Your task to perform on an android device: Add "usb-c to usb-a" to the cart on ebay Image 0: 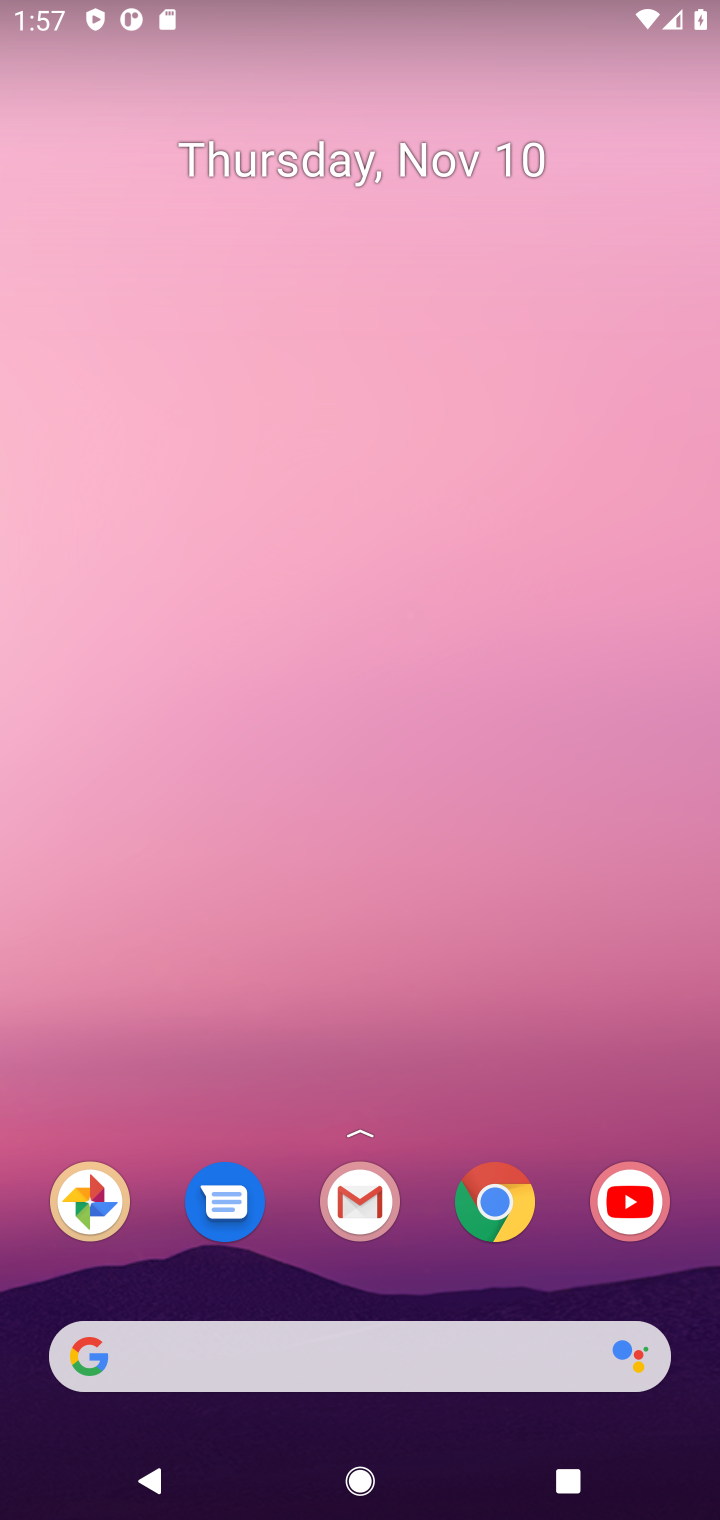
Step 0: click (497, 1198)
Your task to perform on an android device: Add "usb-c to usb-a" to the cart on ebay Image 1: 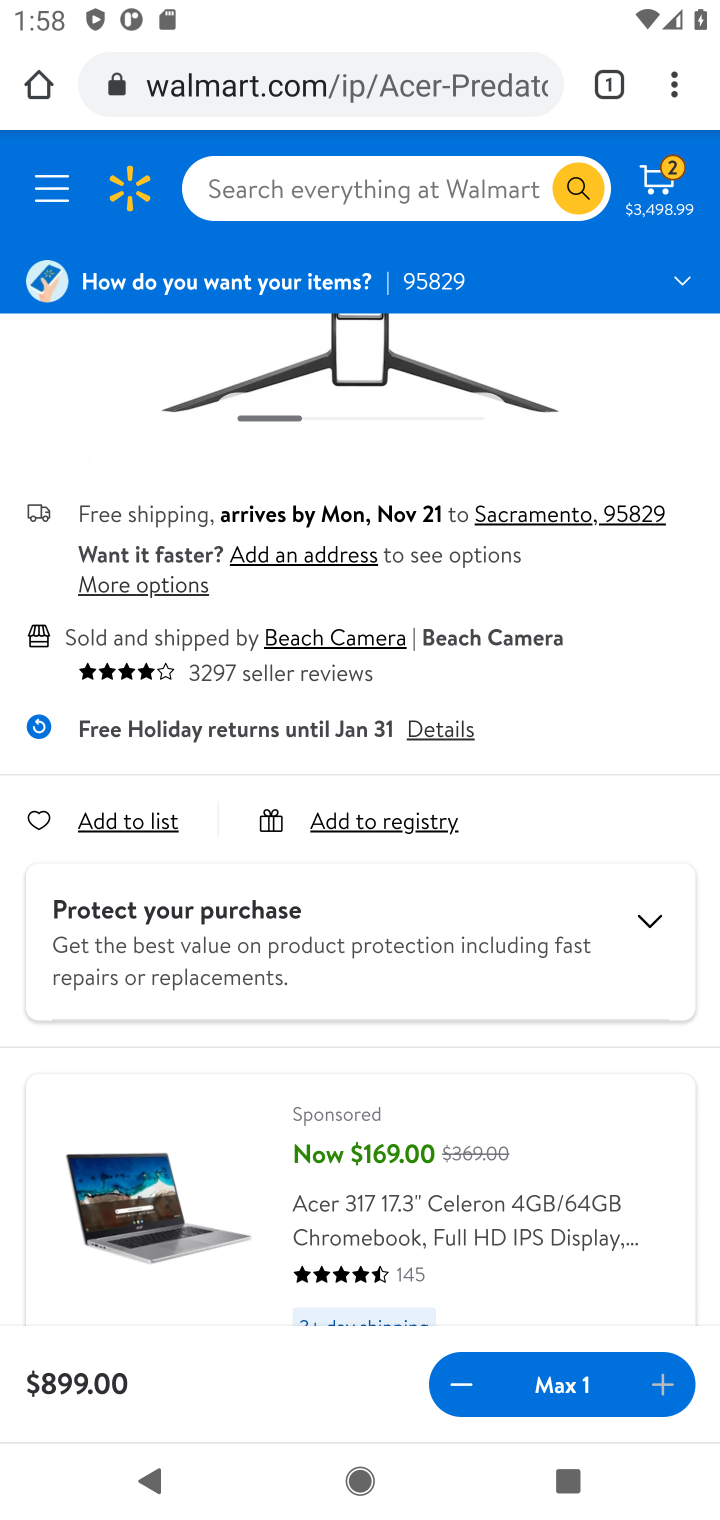
Step 1: click (475, 82)
Your task to perform on an android device: Add "usb-c to usb-a" to the cart on ebay Image 2: 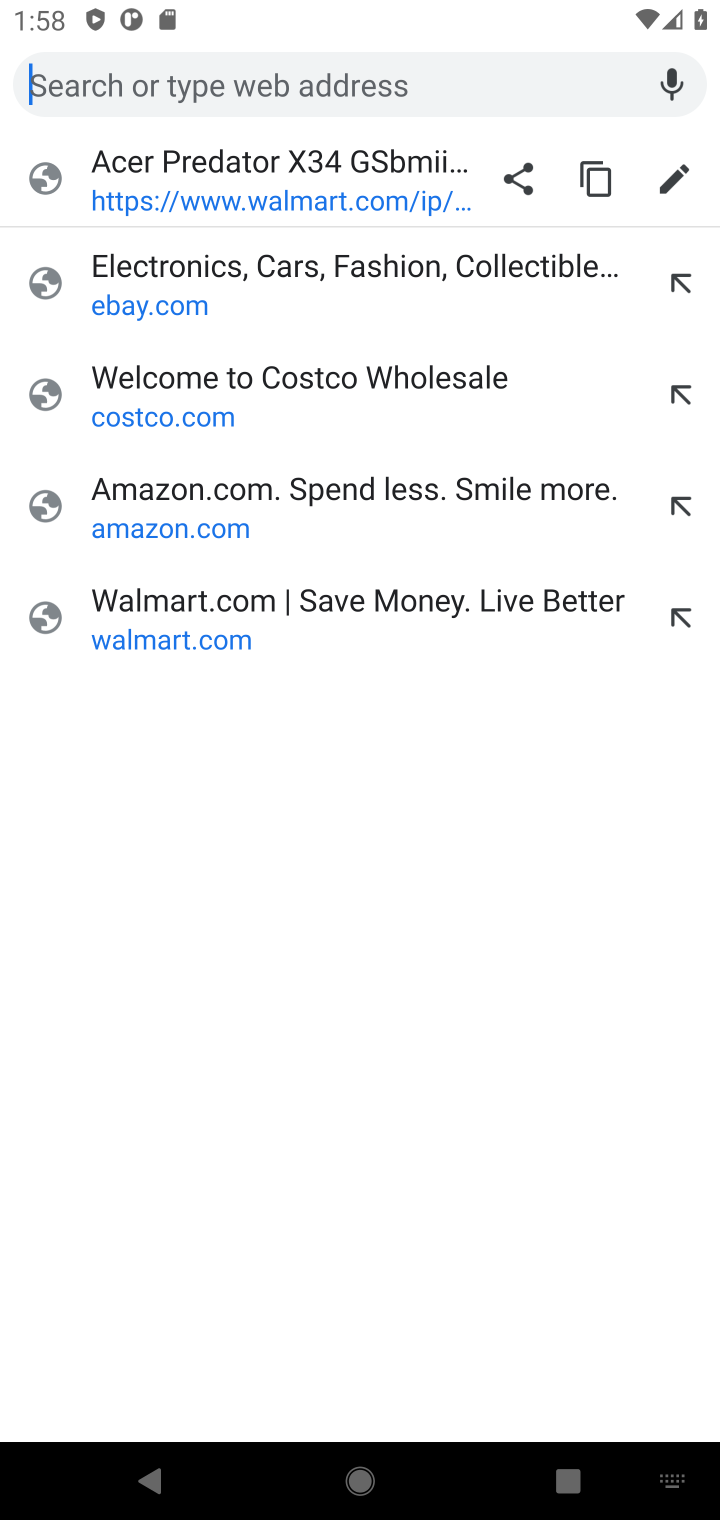
Step 2: click (416, 253)
Your task to perform on an android device: Add "usb-c to usb-a" to the cart on ebay Image 3: 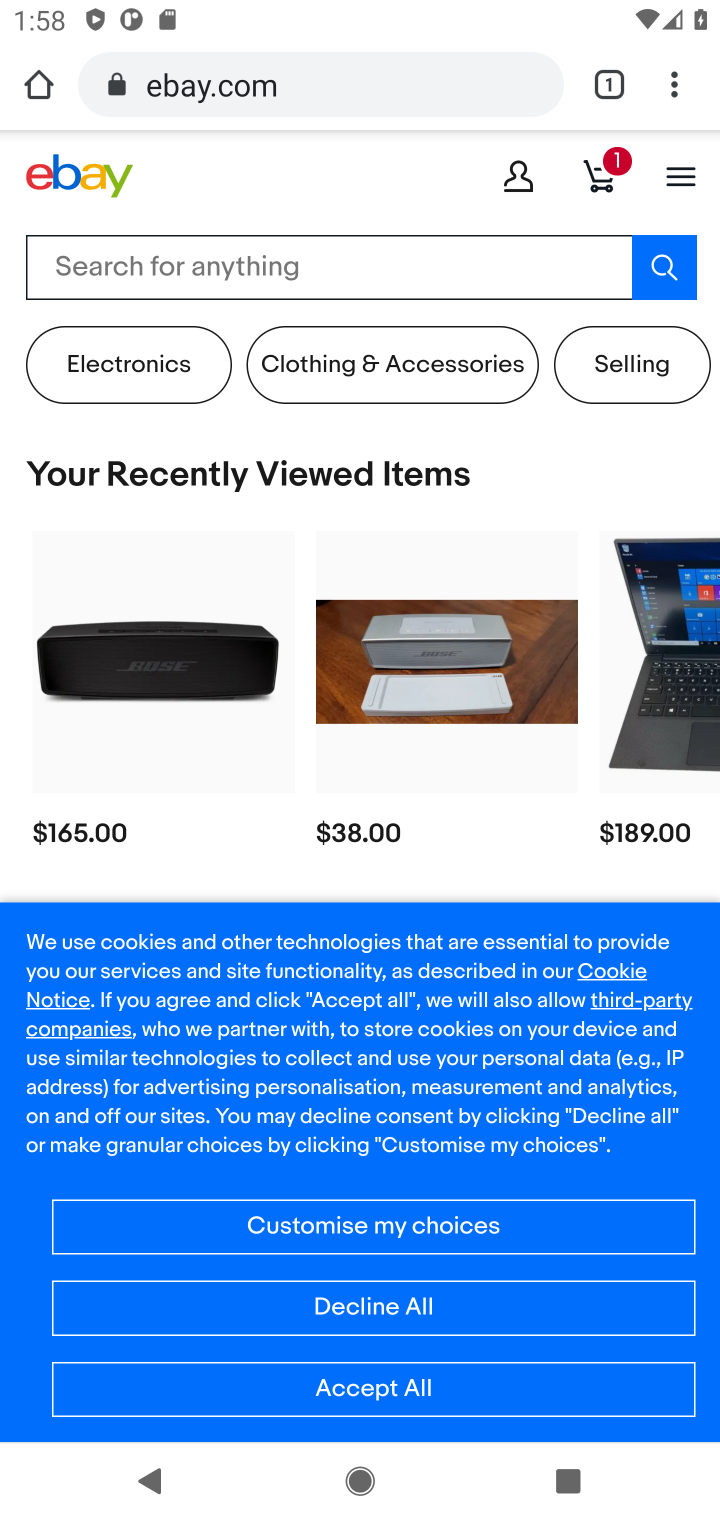
Step 3: click (378, 259)
Your task to perform on an android device: Add "usb-c to usb-a" to the cart on ebay Image 4: 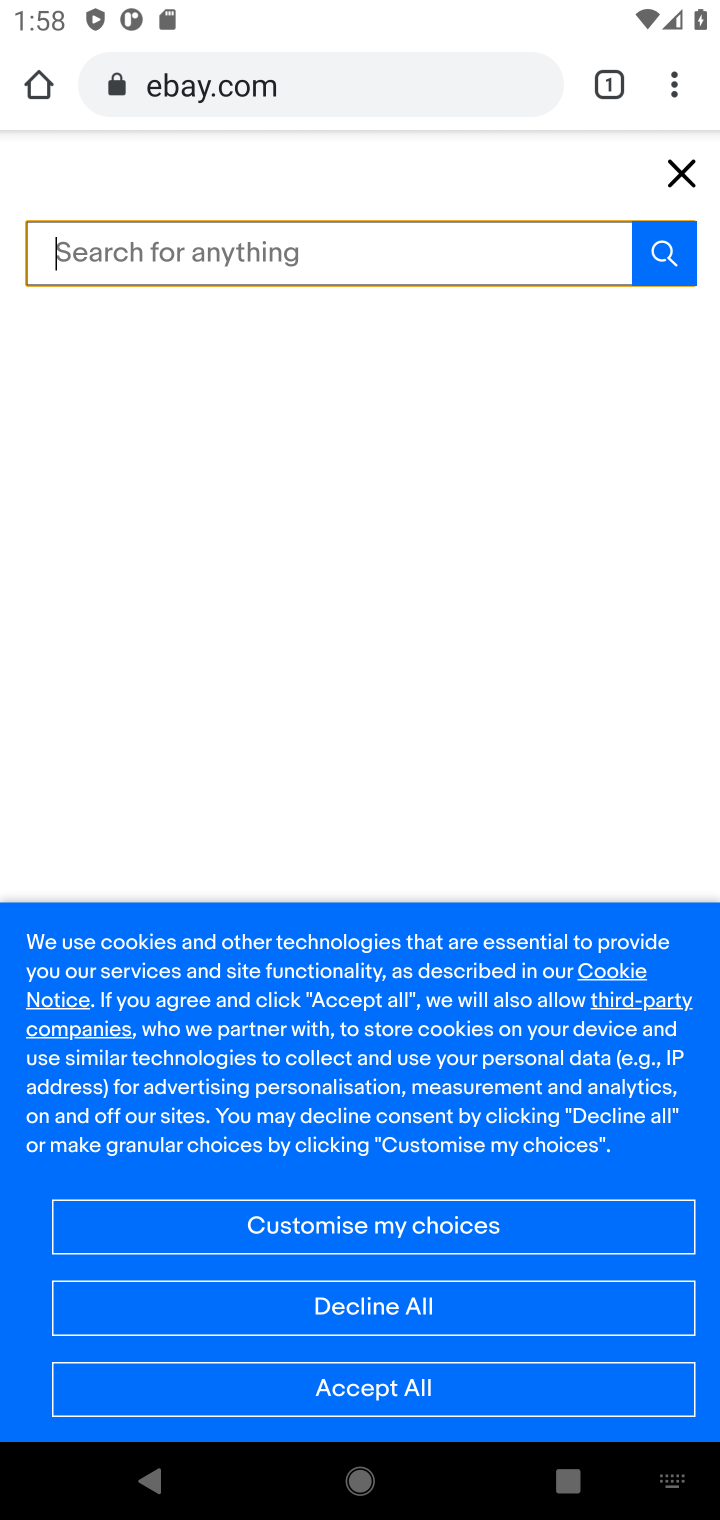
Step 4: type "usb-c to usb-a"
Your task to perform on an android device: Add "usb-c to usb-a" to the cart on ebay Image 5: 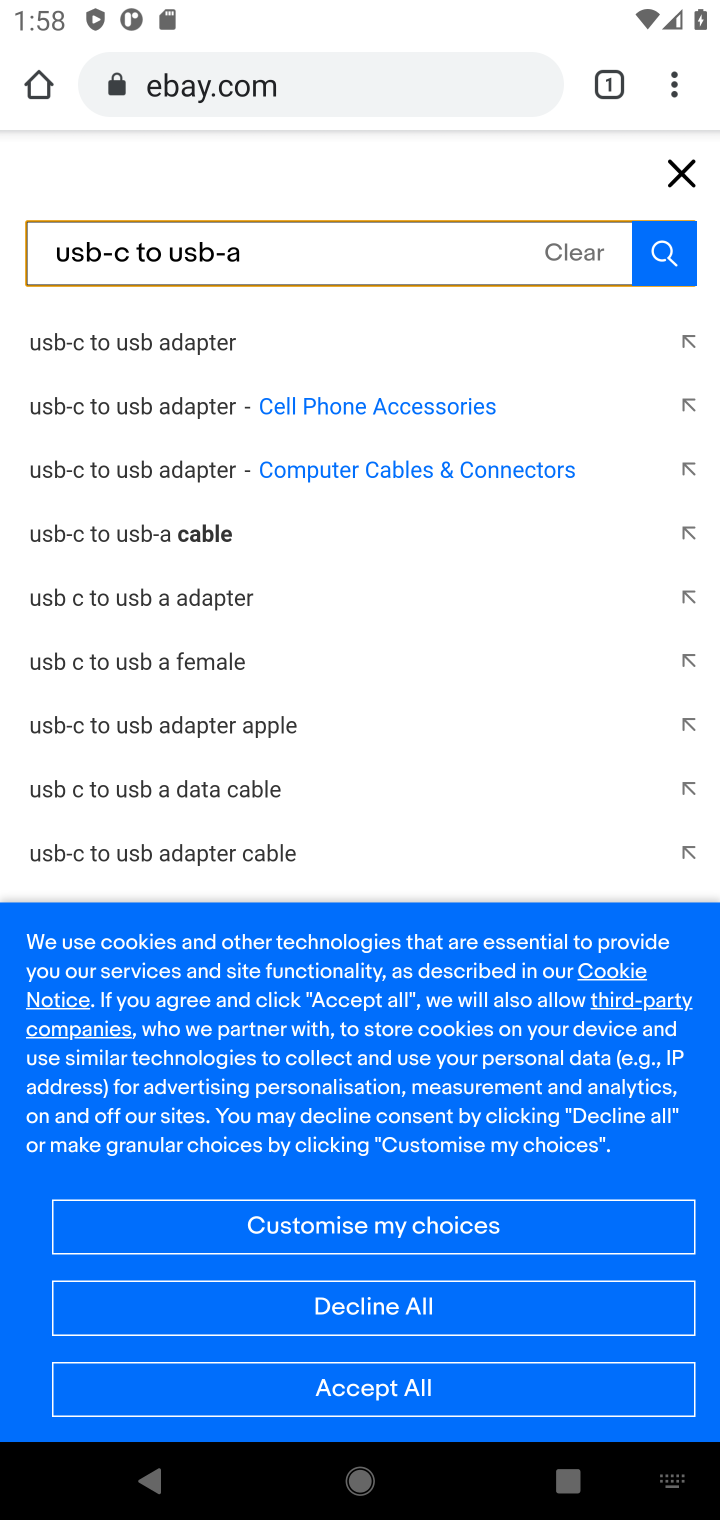
Step 5: click (229, 528)
Your task to perform on an android device: Add "usb-c to usb-a" to the cart on ebay Image 6: 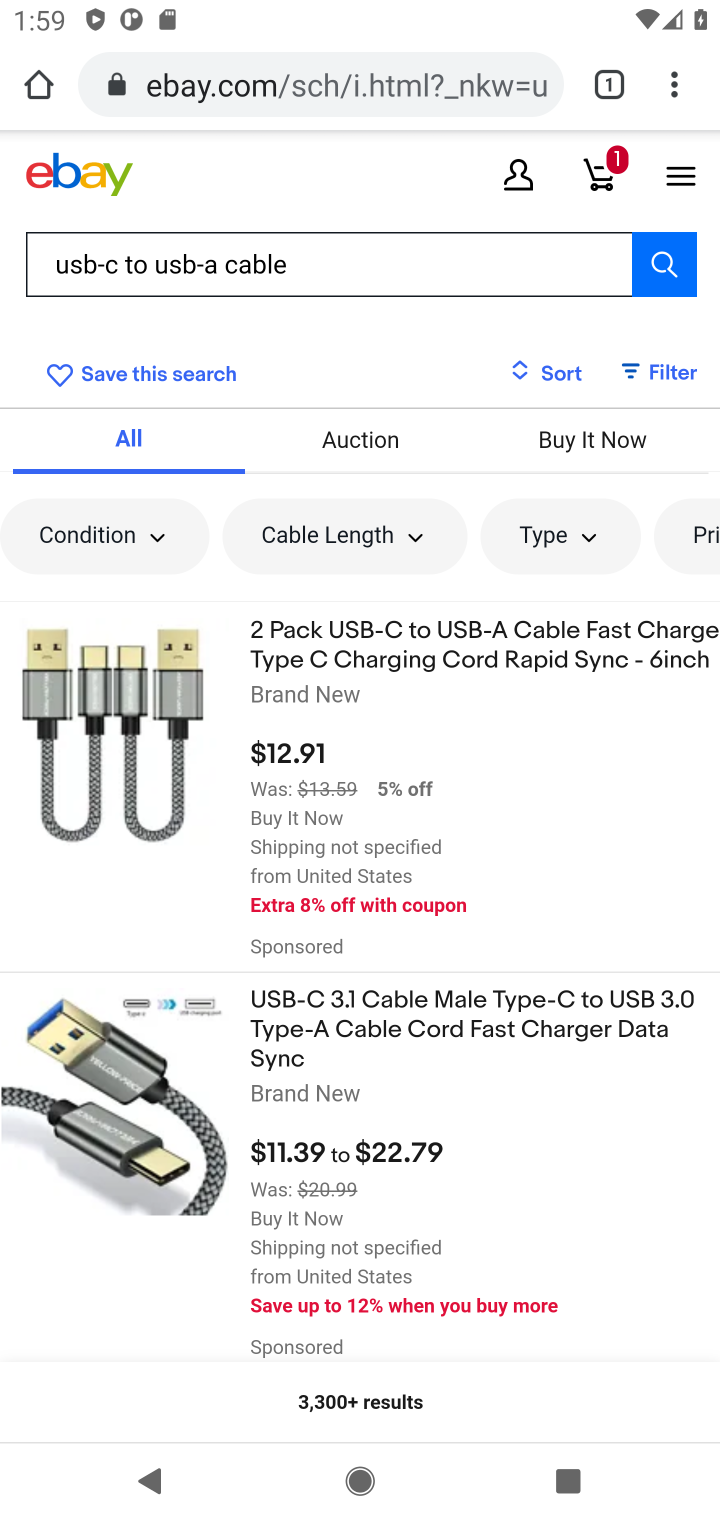
Step 6: click (192, 707)
Your task to perform on an android device: Add "usb-c to usb-a" to the cart on ebay Image 7: 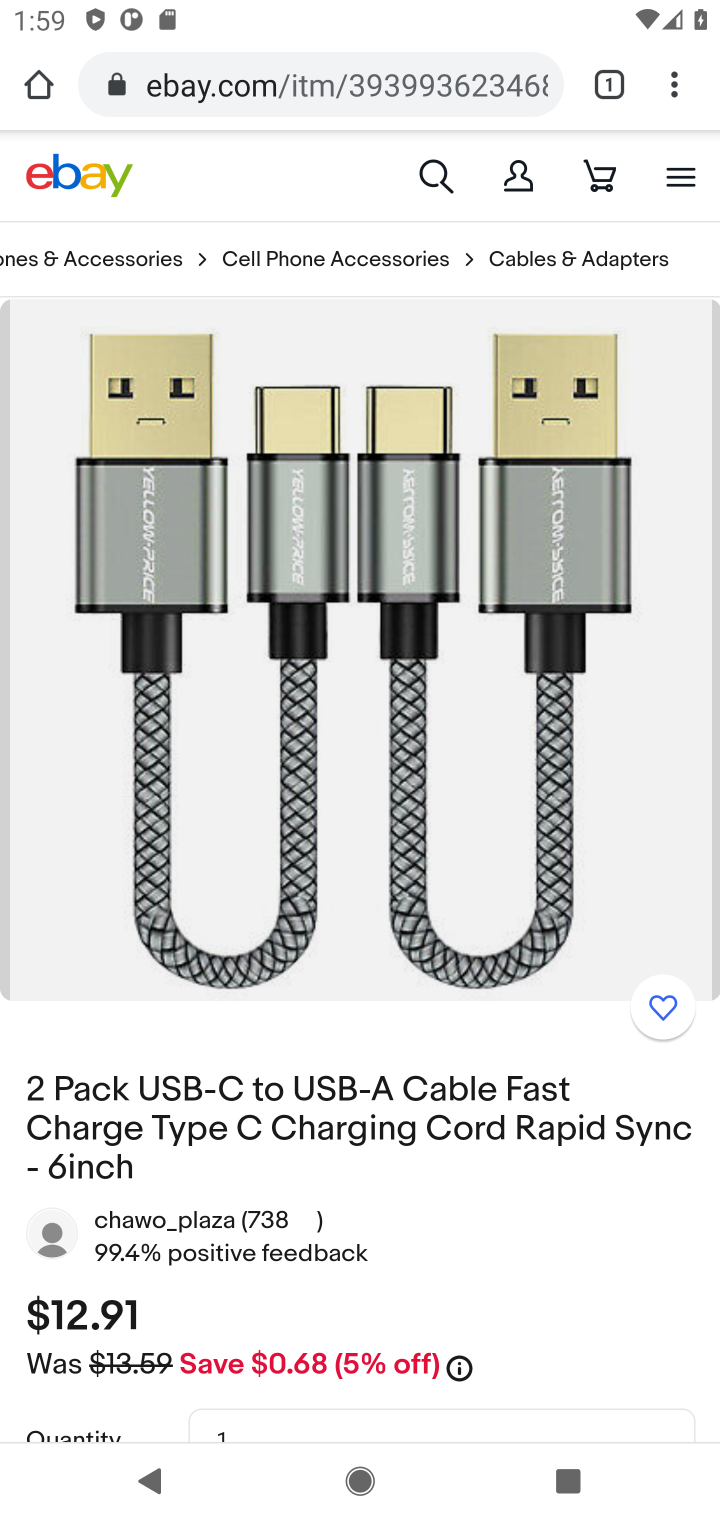
Step 7: drag from (541, 1023) to (712, 575)
Your task to perform on an android device: Add "usb-c to usb-a" to the cart on ebay Image 8: 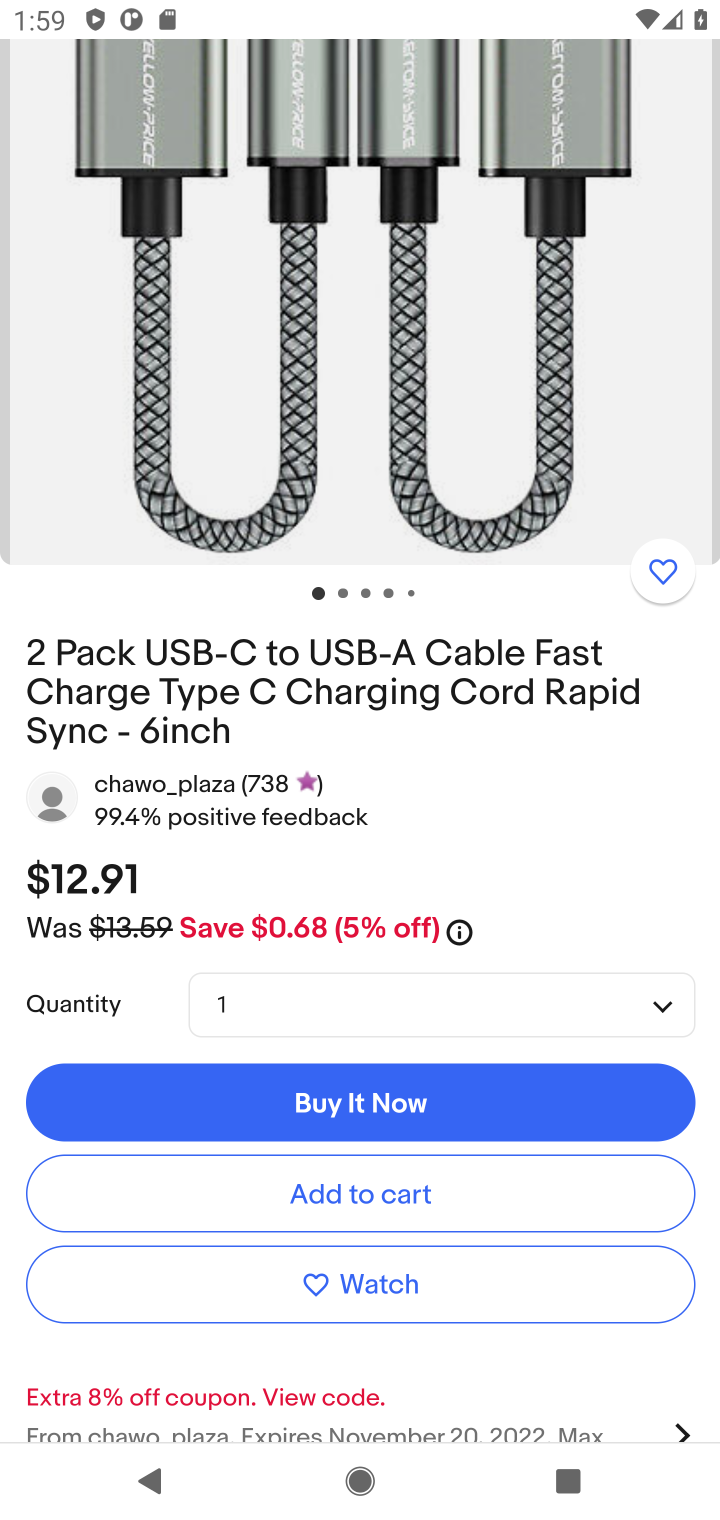
Step 8: click (430, 1195)
Your task to perform on an android device: Add "usb-c to usb-a" to the cart on ebay Image 9: 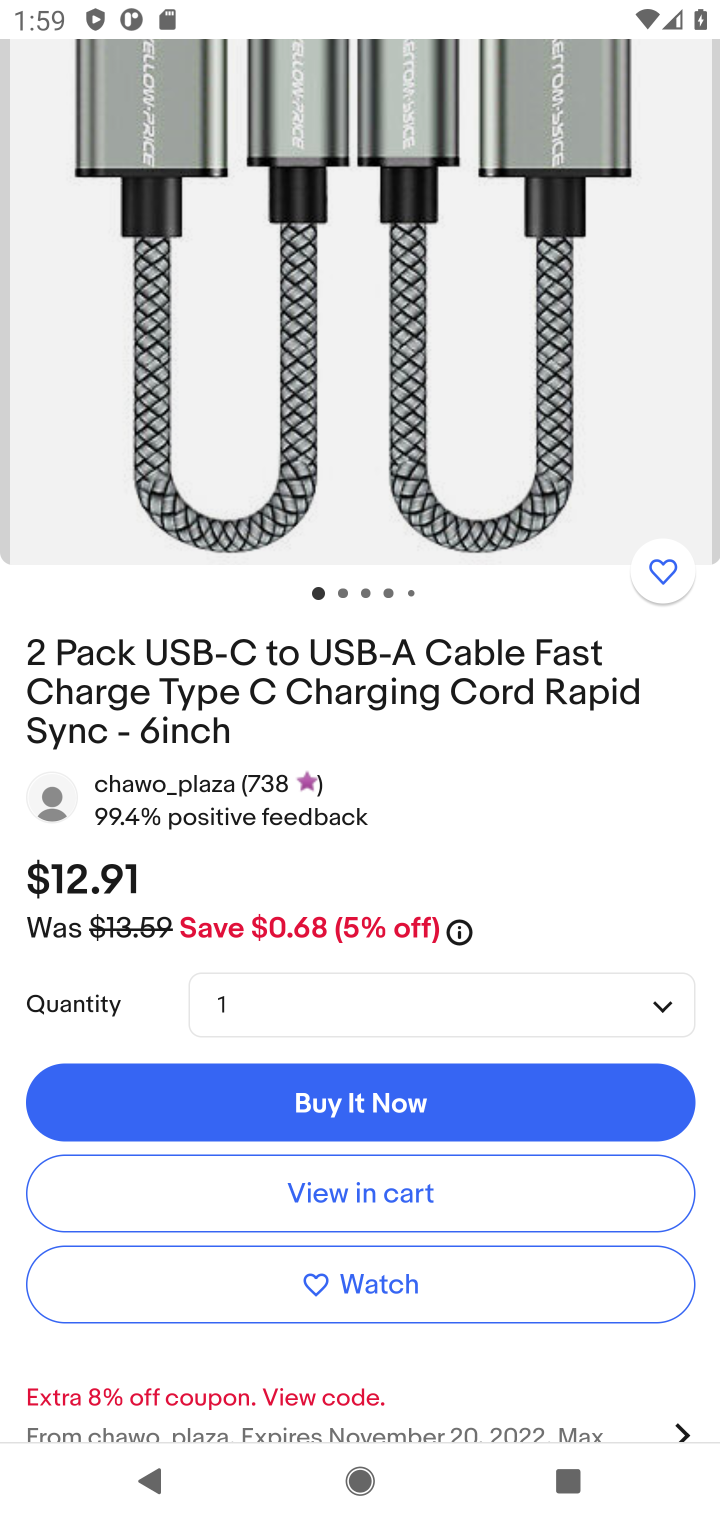
Step 9: click (474, 1205)
Your task to perform on an android device: Add "usb-c to usb-a" to the cart on ebay Image 10: 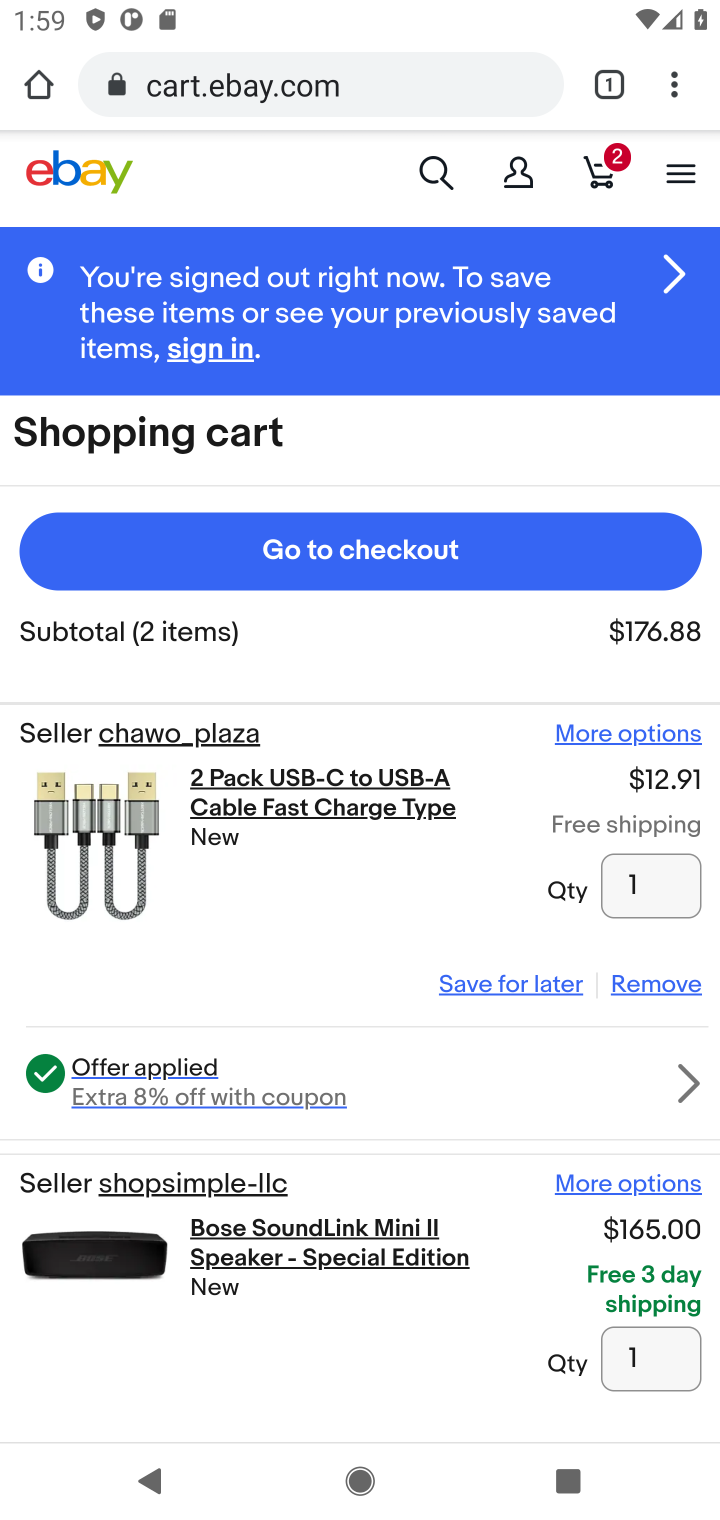
Step 10: task complete